Your task to perform on an android device: Go to CNN.com Image 0: 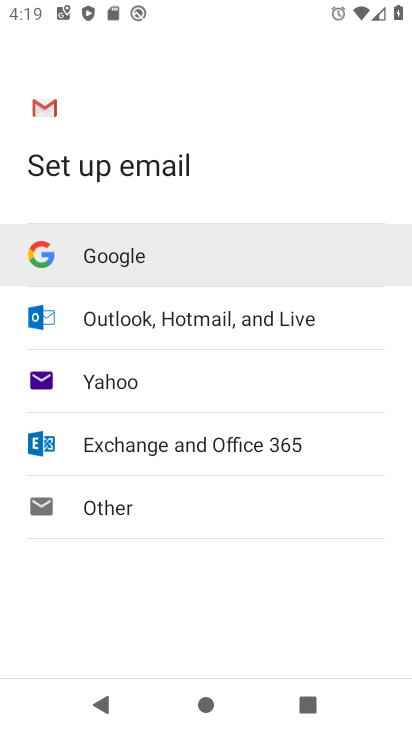
Step 0: press home button
Your task to perform on an android device: Go to CNN.com Image 1: 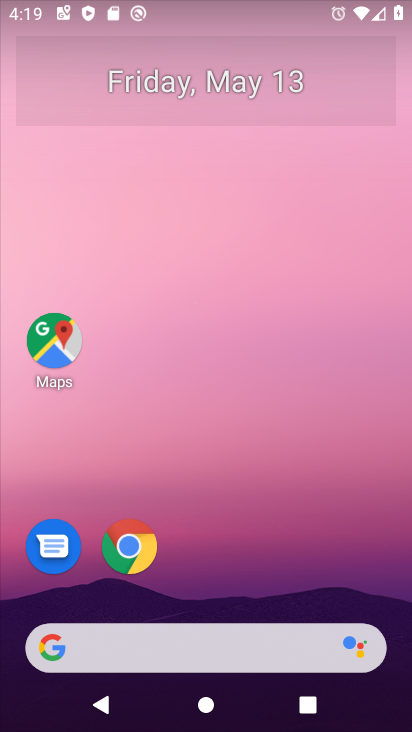
Step 1: click (140, 550)
Your task to perform on an android device: Go to CNN.com Image 2: 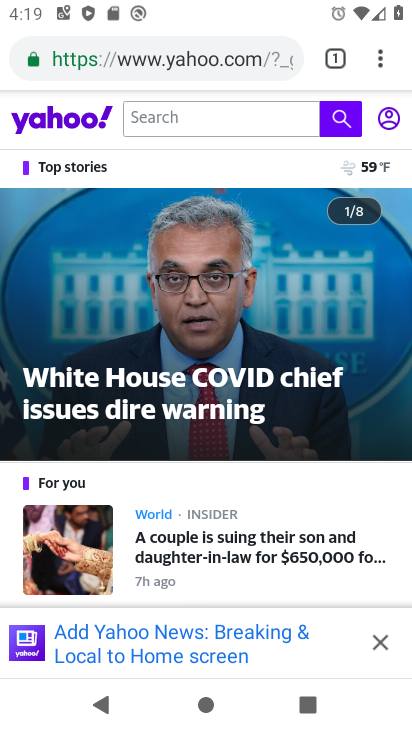
Step 2: click (210, 60)
Your task to perform on an android device: Go to CNN.com Image 3: 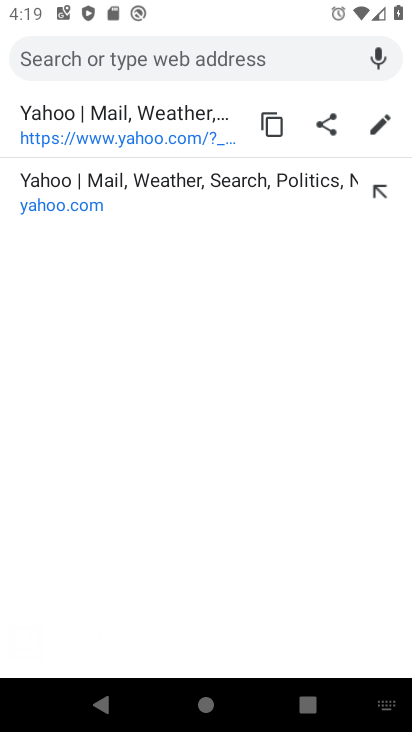
Step 3: type "CNN.com"
Your task to perform on an android device: Go to CNN.com Image 4: 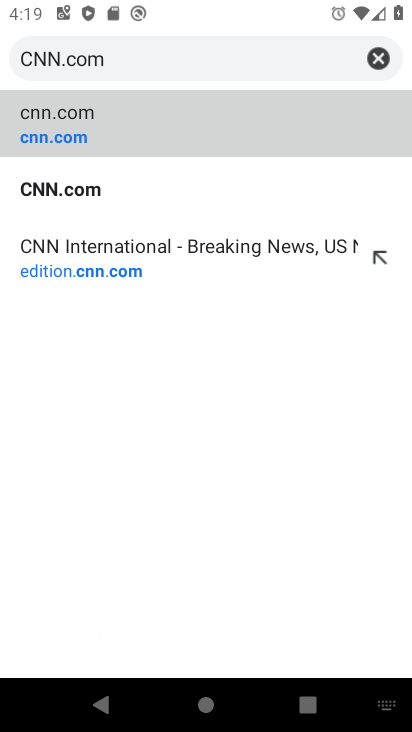
Step 4: click (105, 118)
Your task to perform on an android device: Go to CNN.com Image 5: 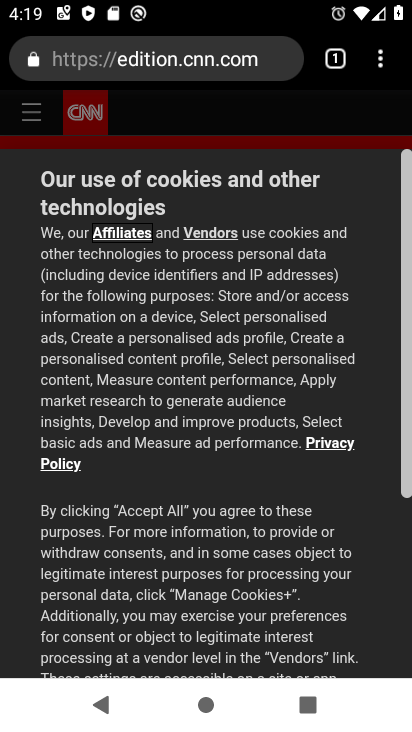
Step 5: task complete